Your task to perform on an android device: Set the phone to "Do not disturb". Image 0: 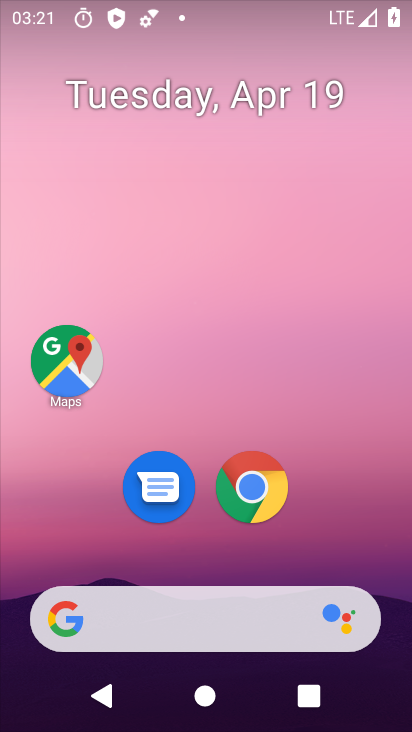
Step 0: drag from (183, 536) to (335, 15)
Your task to perform on an android device: Set the phone to "Do not disturb". Image 1: 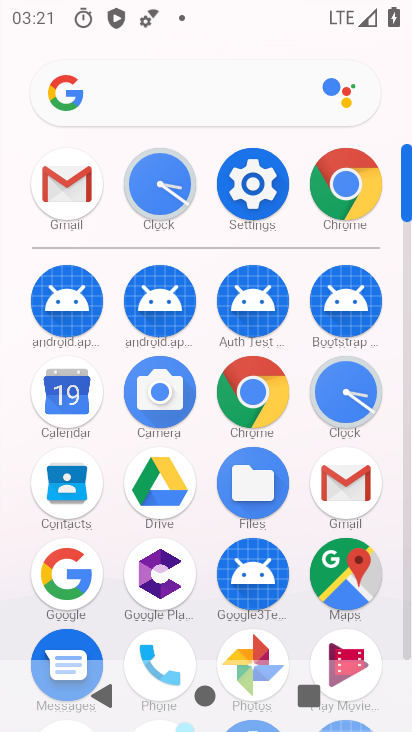
Step 1: drag from (252, 2) to (208, 548)
Your task to perform on an android device: Set the phone to "Do not disturb". Image 2: 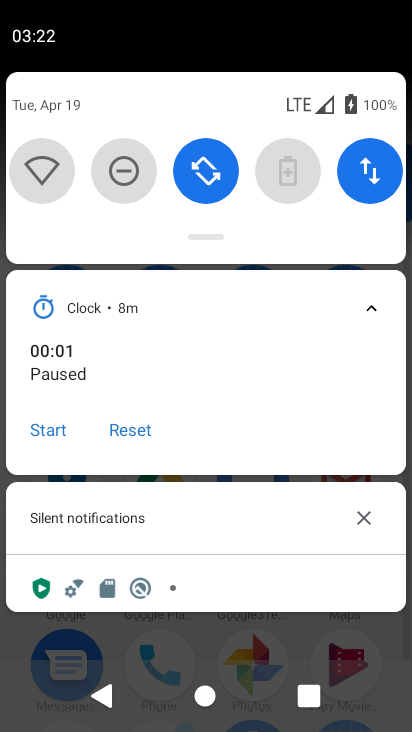
Step 2: click (112, 173)
Your task to perform on an android device: Set the phone to "Do not disturb". Image 3: 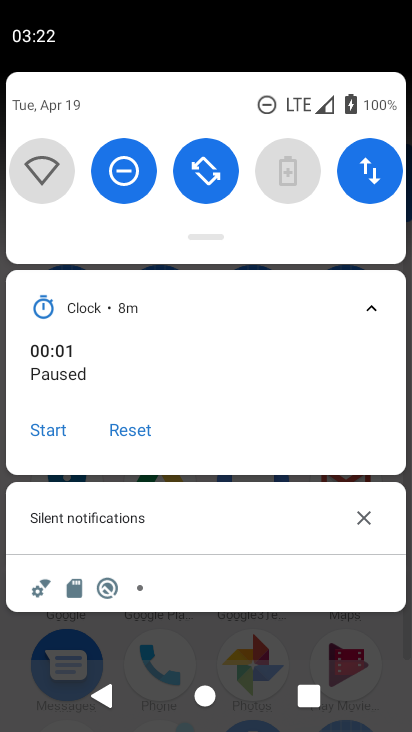
Step 3: task complete